Your task to perform on an android device: check google app version Image 0: 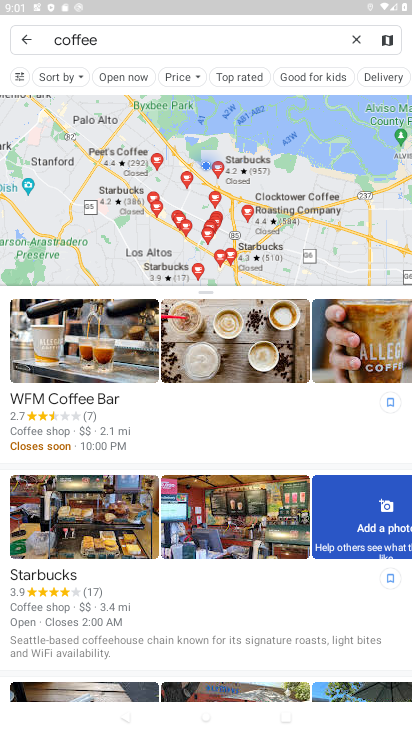
Step 0: press home button
Your task to perform on an android device: check google app version Image 1: 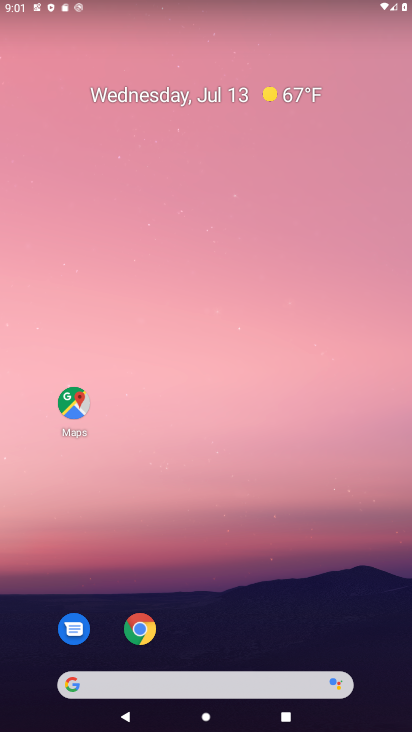
Step 1: click (74, 685)
Your task to perform on an android device: check google app version Image 2: 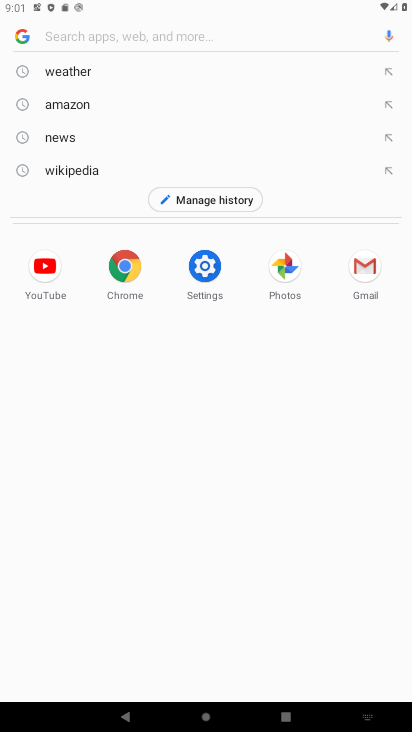
Step 2: click (16, 33)
Your task to perform on an android device: check google app version Image 3: 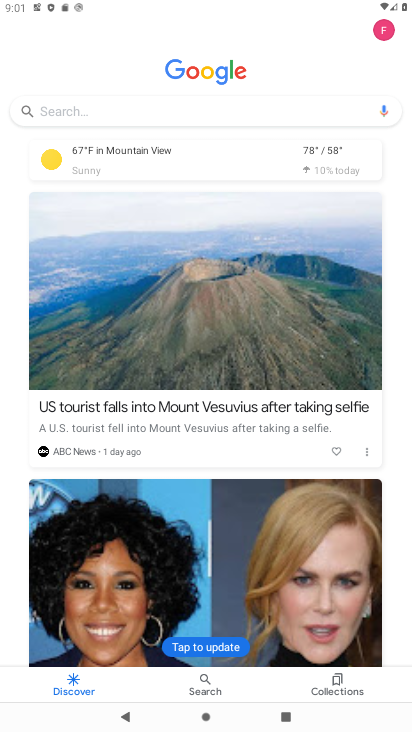
Step 3: click (386, 31)
Your task to perform on an android device: check google app version Image 4: 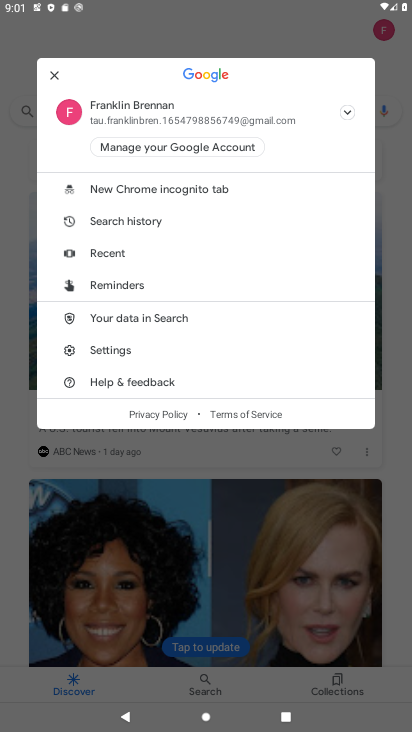
Step 4: click (114, 354)
Your task to perform on an android device: check google app version Image 5: 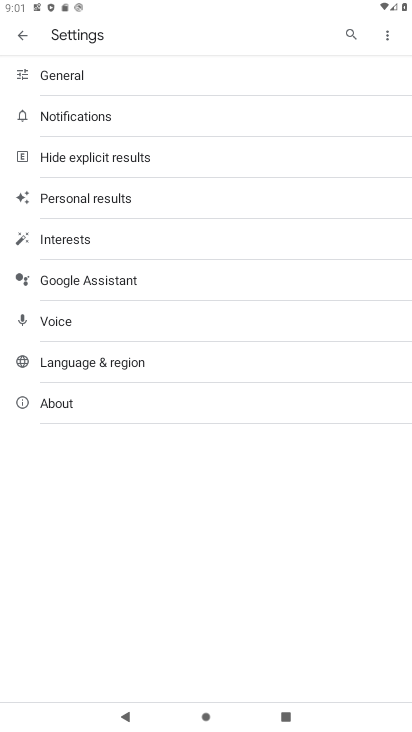
Step 5: click (67, 408)
Your task to perform on an android device: check google app version Image 6: 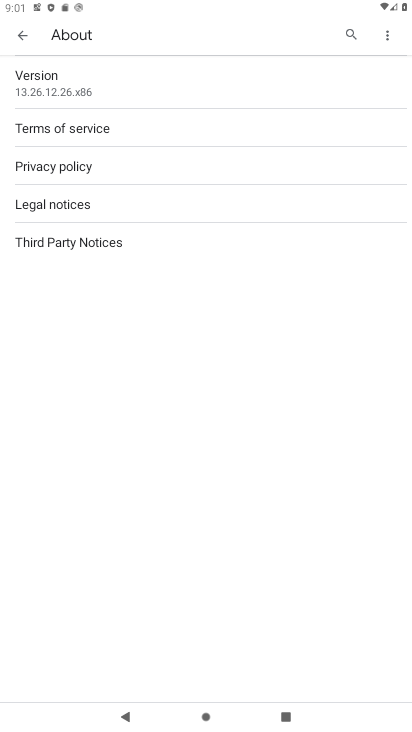
Step 6: task complete